Your task to perform on an android device: check android version Image 0: 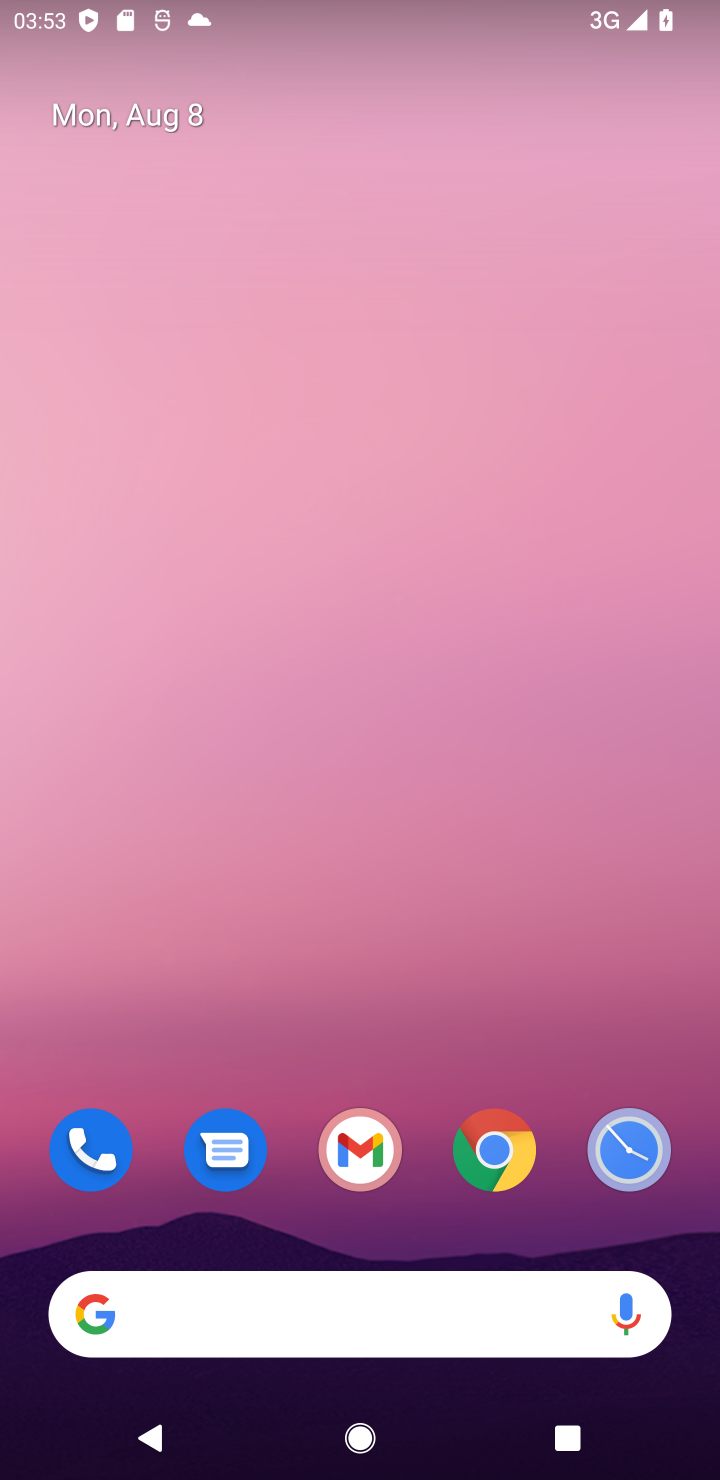
Step 0: drag from (35, 1392) to (348, 564)
Your task to perform on an android device: check android version Image 1: 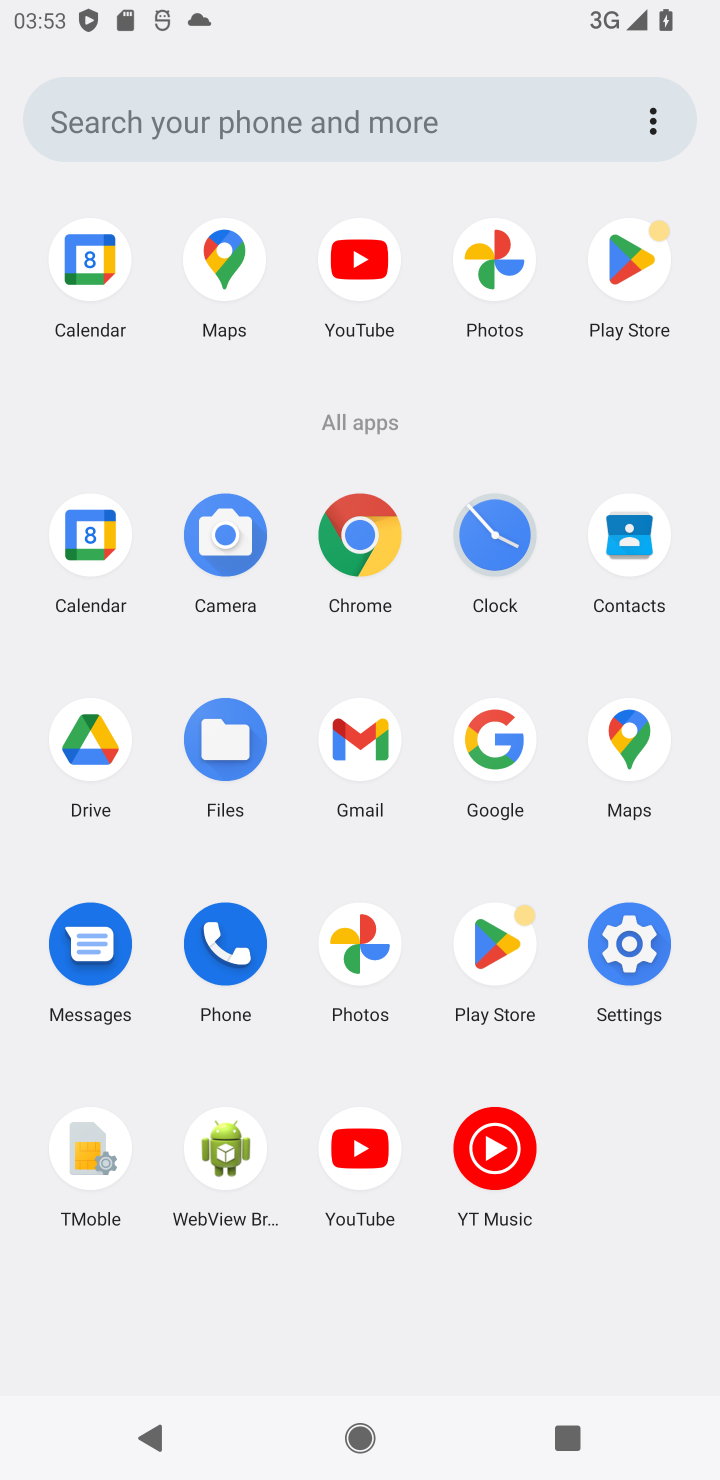
Step 1: click (604, 956)
Your task to perform on an android device: check android version Image 2: 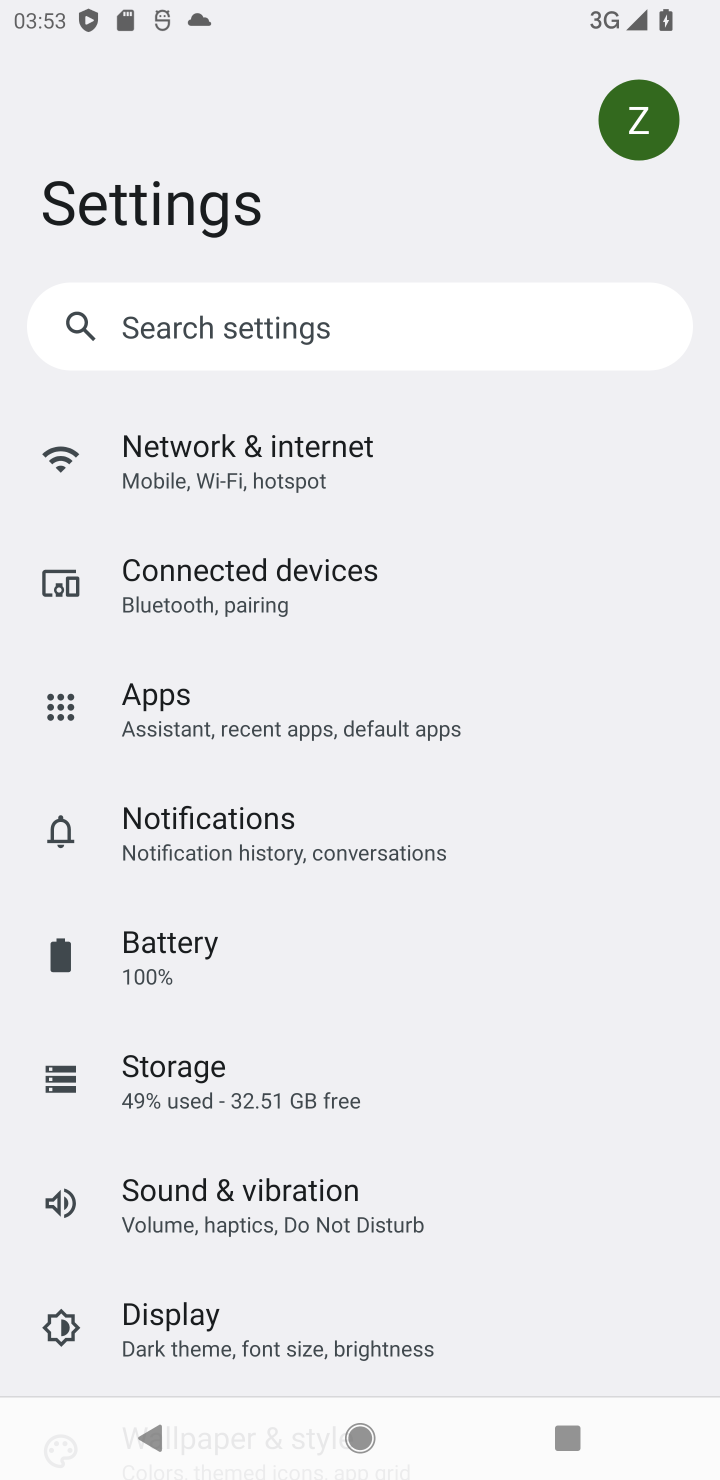
Step 2: drag from (587, 1126) to (564, 810)
Your task to perform on an android device: check android version Image 3: 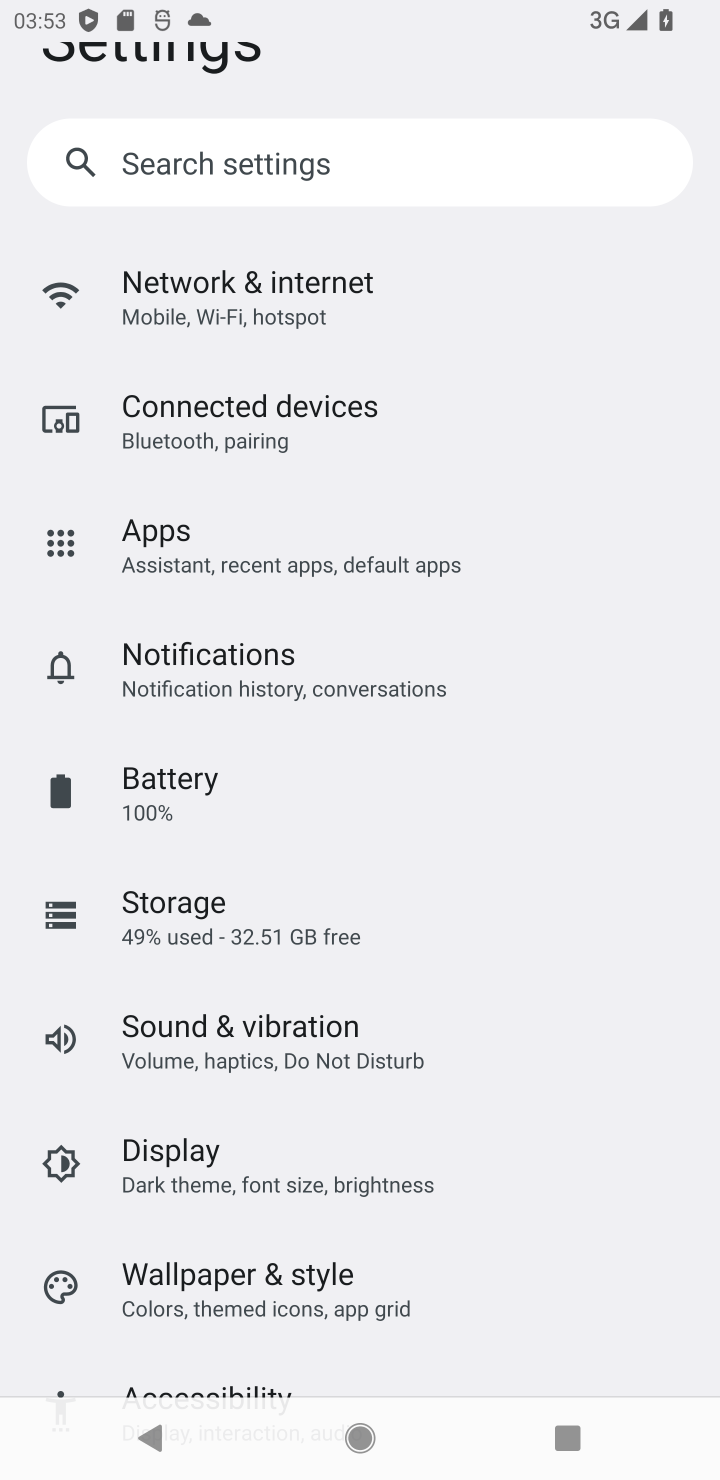
Step 3: drag from (557, 1307) to (627, 816)
Your task to perform on an android device: check android version Image 4: 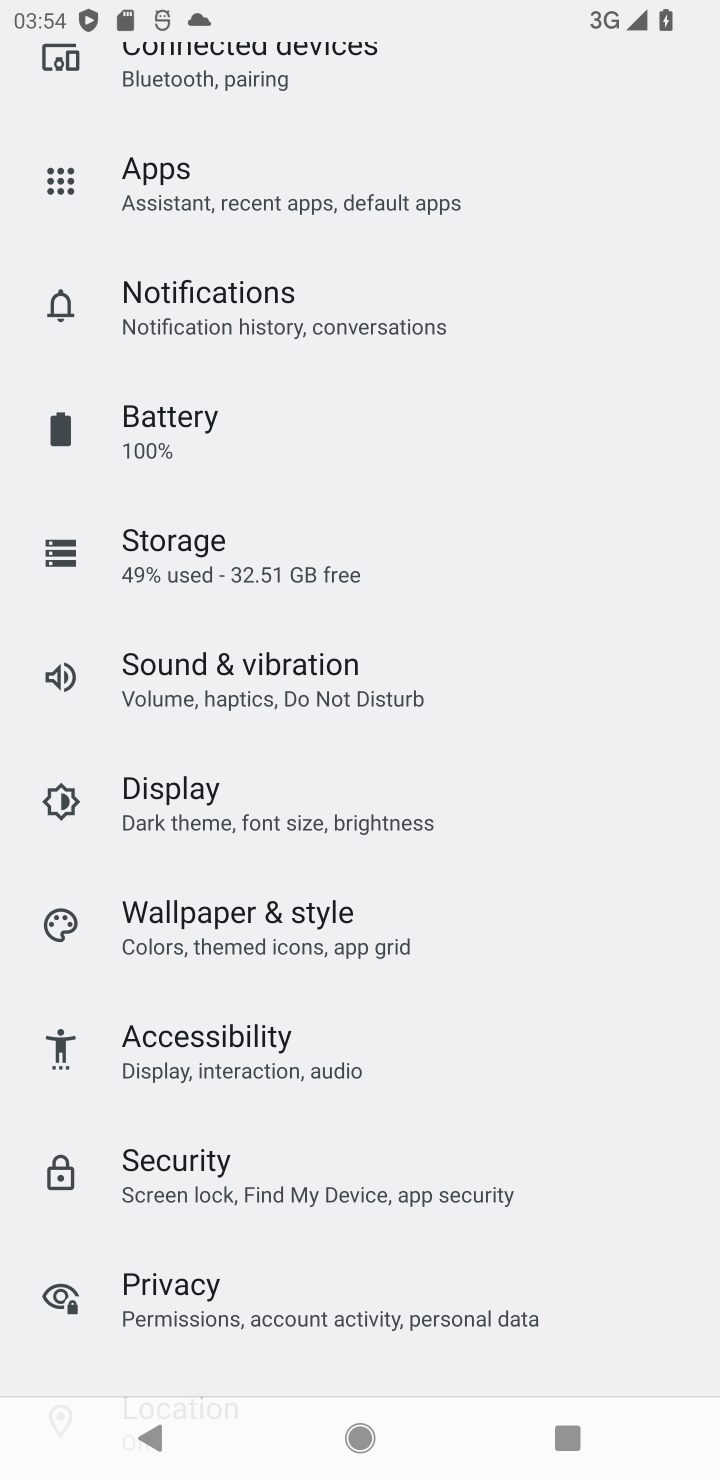
Step 4: drag from (617, 1306) to (576, 425)
Your task to perform on an android device: check android version Image 5: 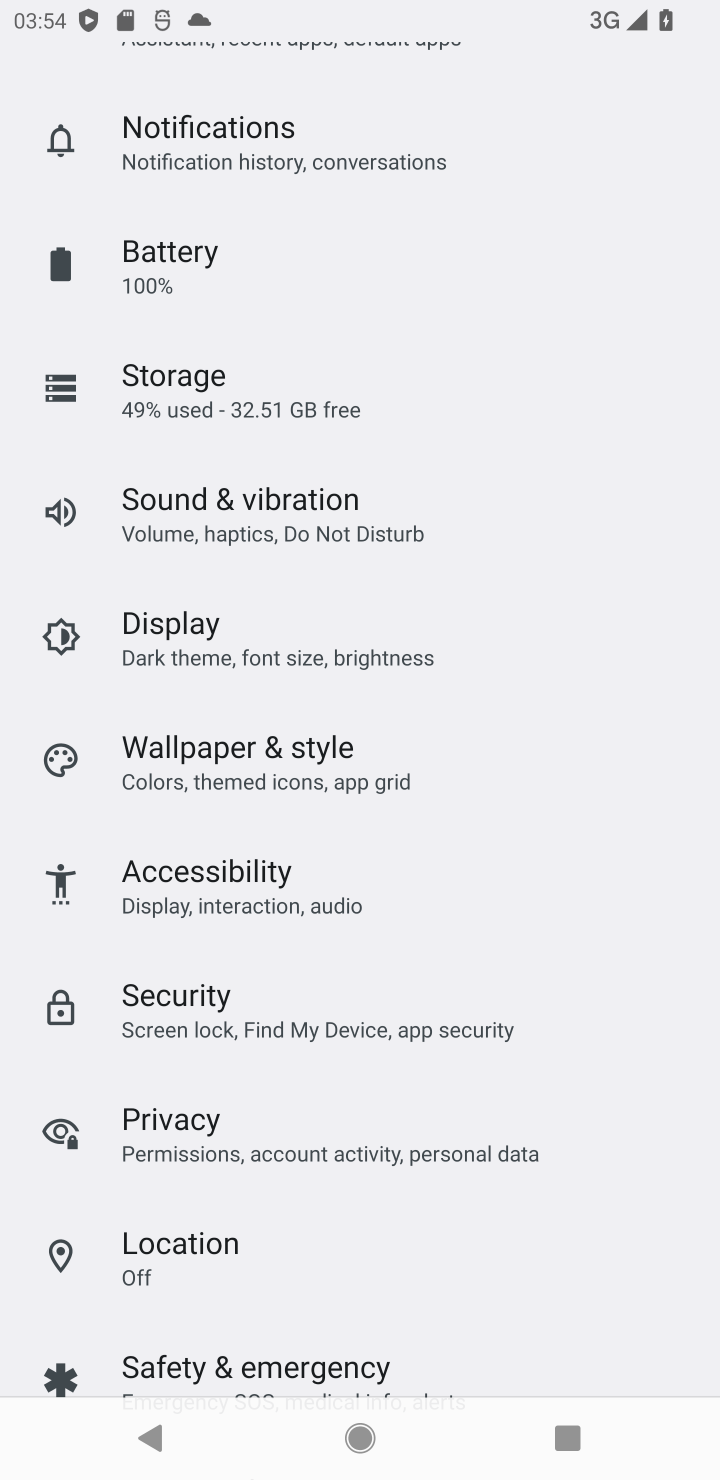
Step 5: drag from (621, 1359) to (596, 423)
Your task to perform on an android device: check android version Image 6: 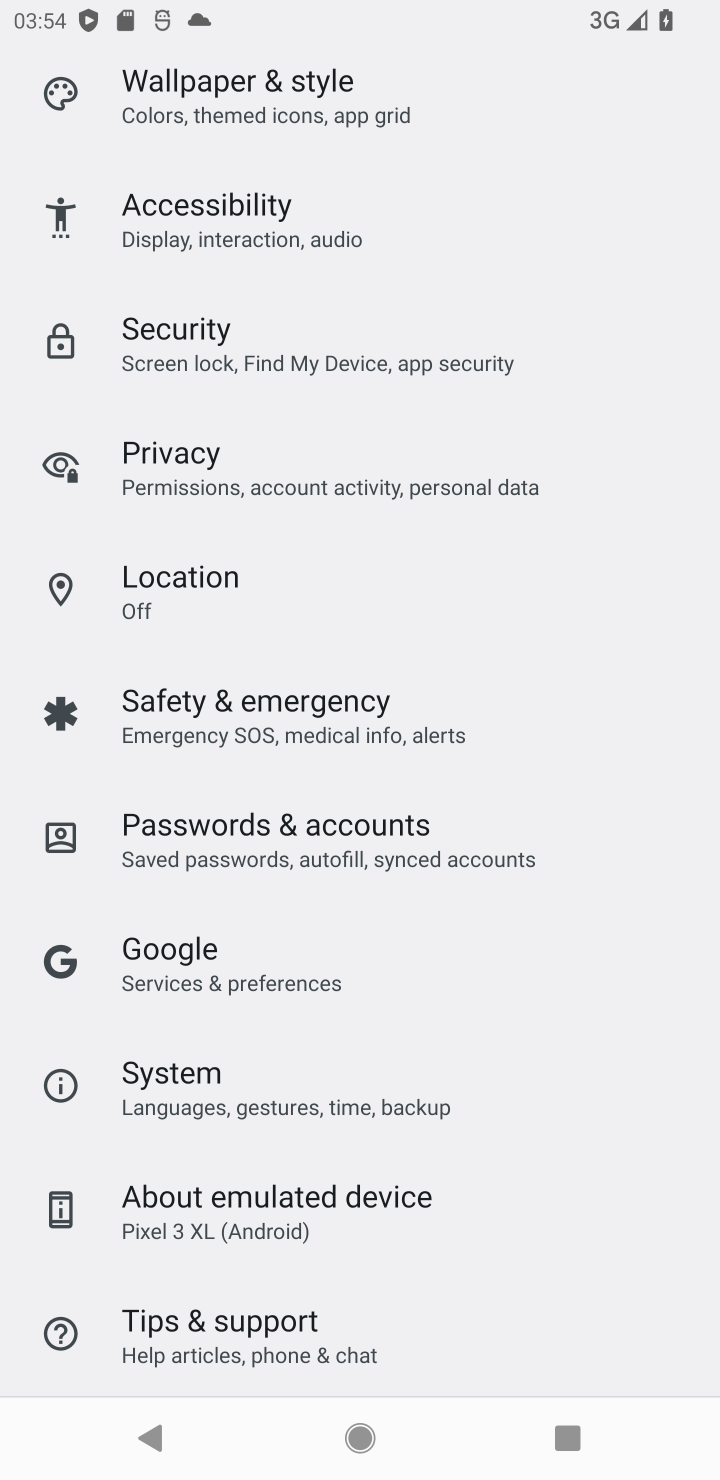
Step 6: click (262, 1225)
Your task to perform on an android device: check android version Image 7: 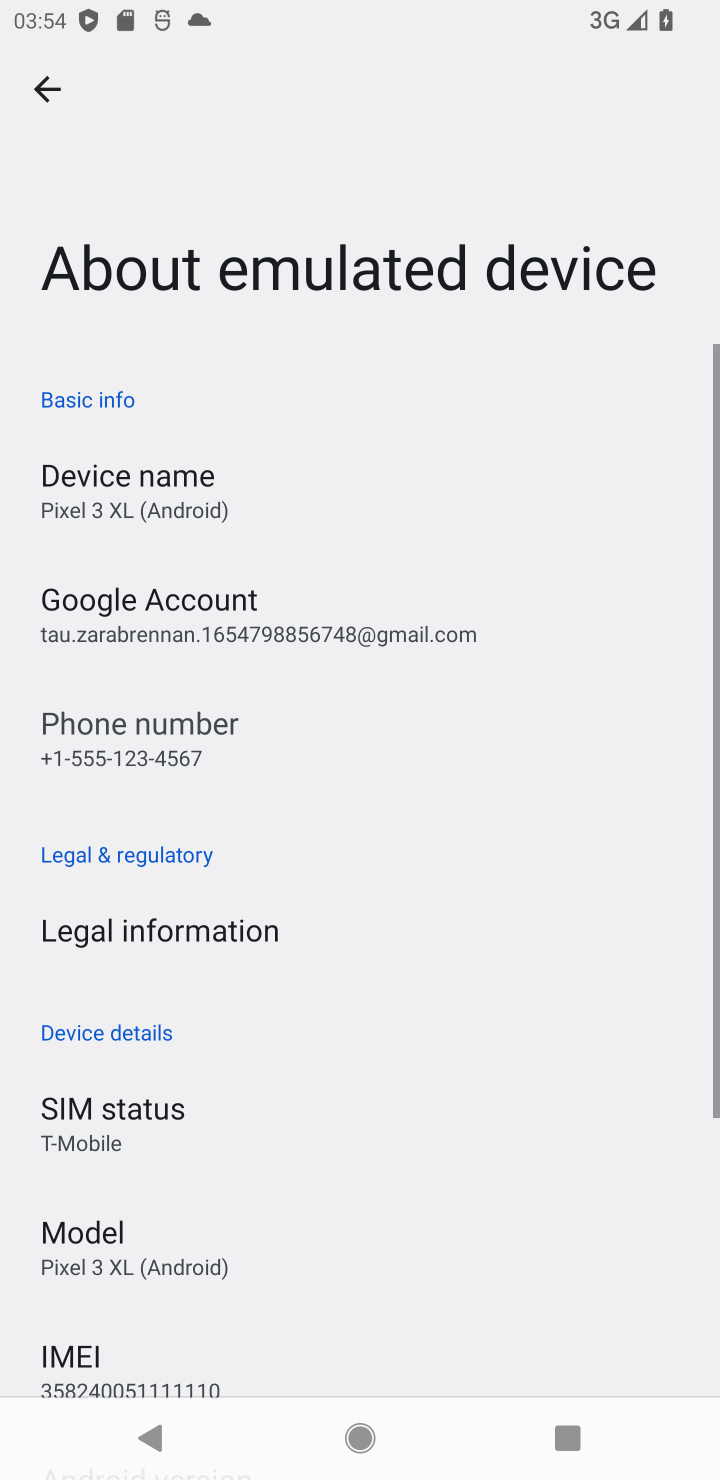
Step 7: drag from (460, 1322) to (492, 733)
Your task to perform on an android device: check android version Image 8: 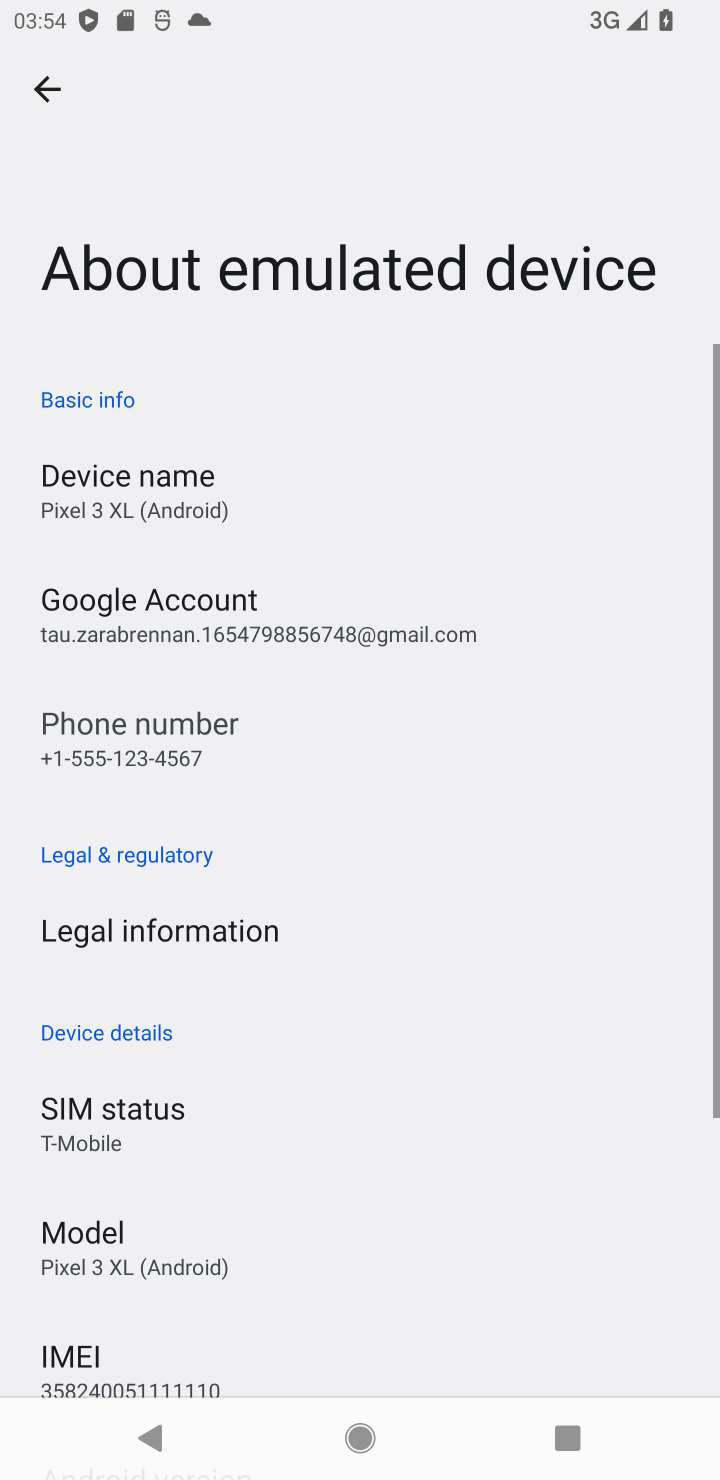
Step 8: drag from (549, 1296) to (513, 870)
Your task to perform on an android device: check android version Image 9: 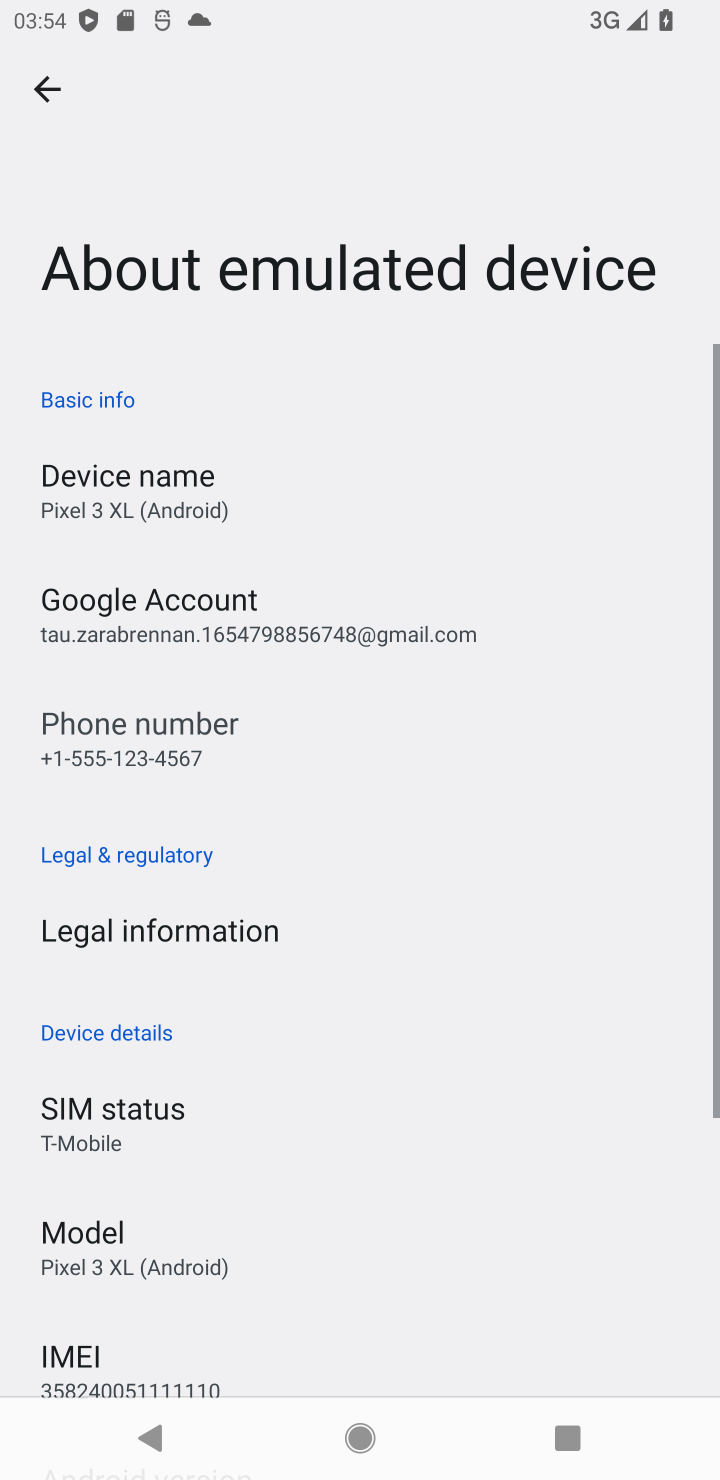
Step 9: click (44, 85)
Your task to perform on an android device: check android version Image 10: 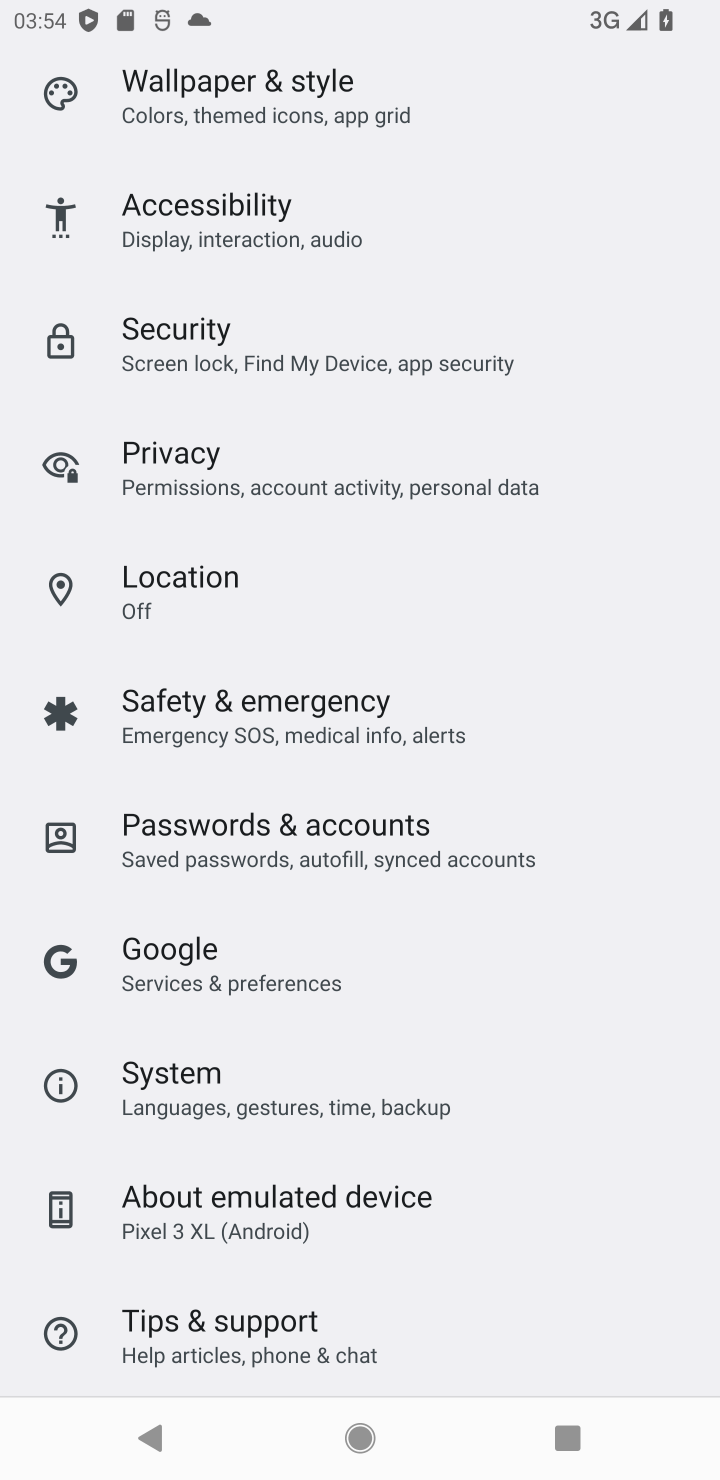
Step 10: click (200, 1074)
Your task to perform on an android device: check android version Image 11: 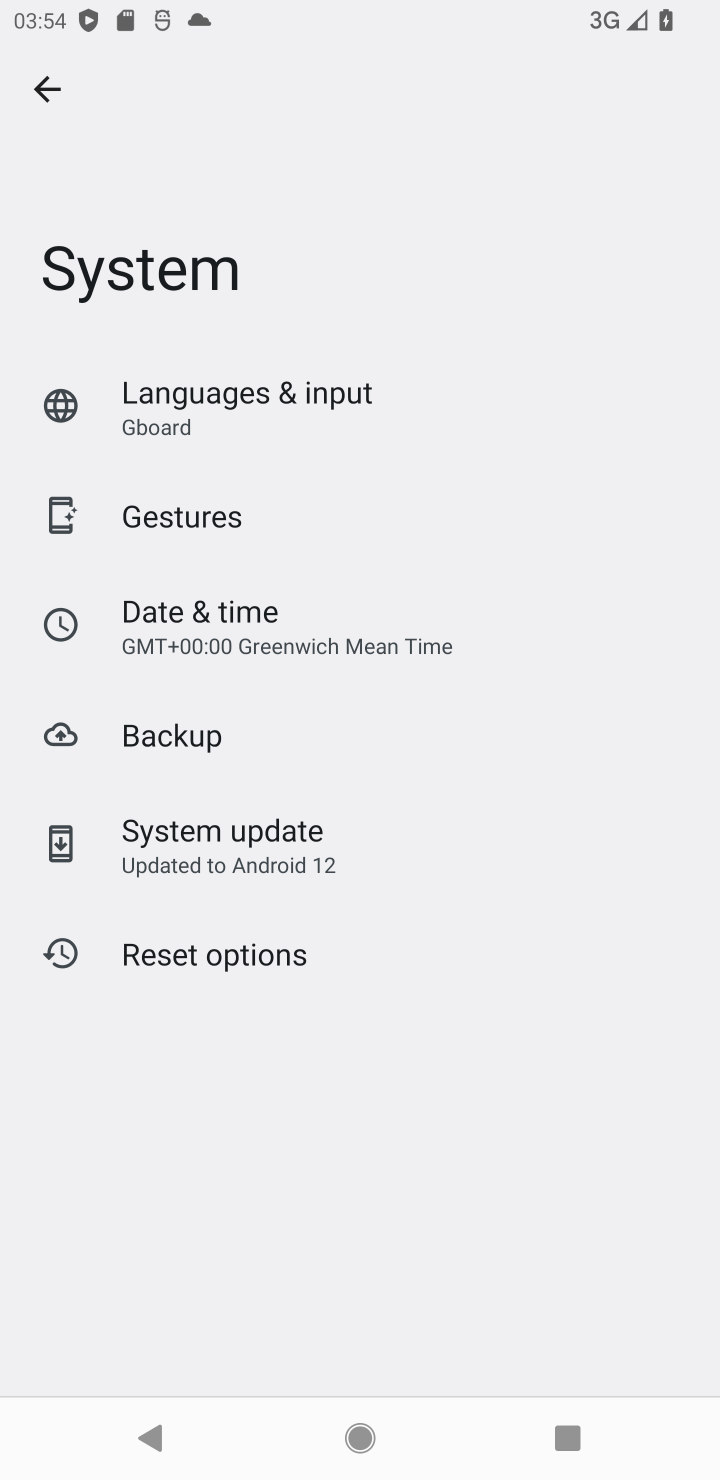
Step 11: click (43, 82)
Your task to perform on an android device: check android version Image 12: 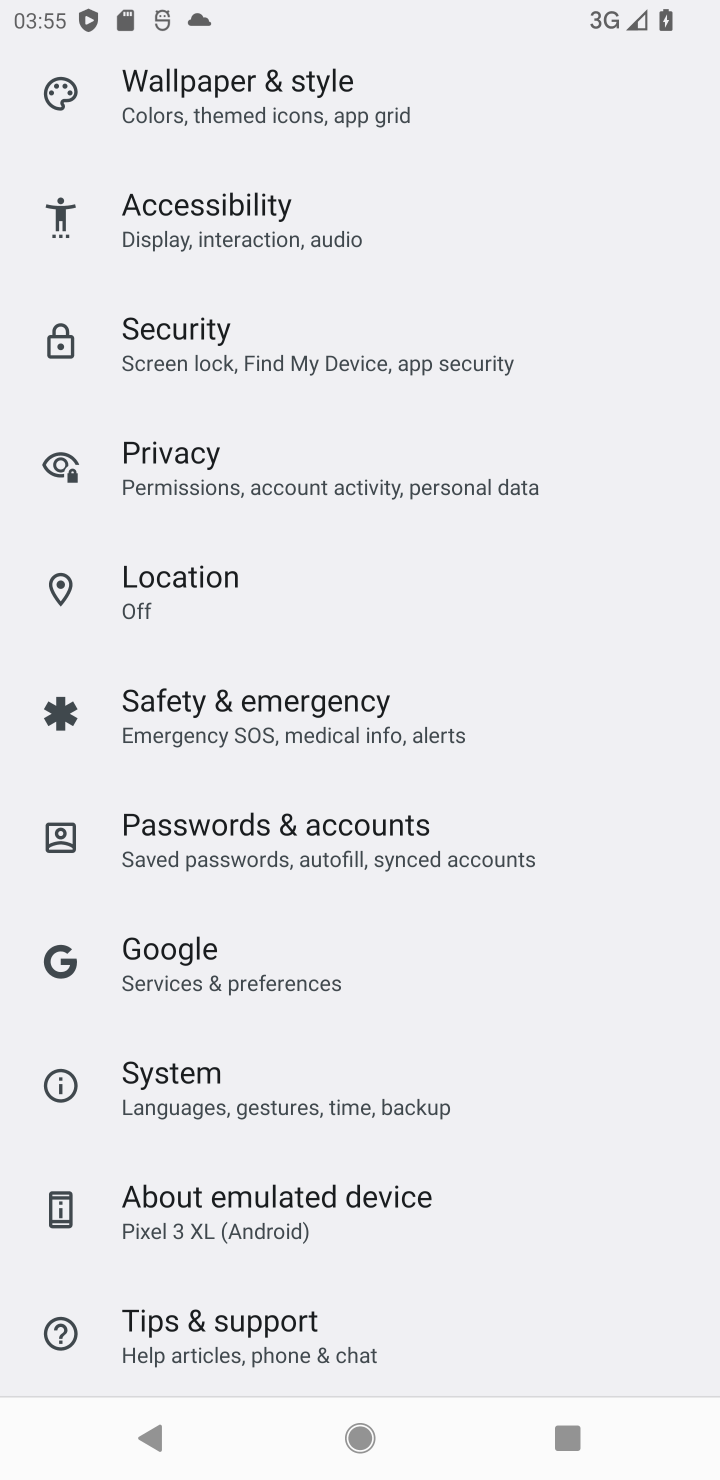
Step 12: click (231, 1204)
Your task to perform on an android device: check android version Image 13: 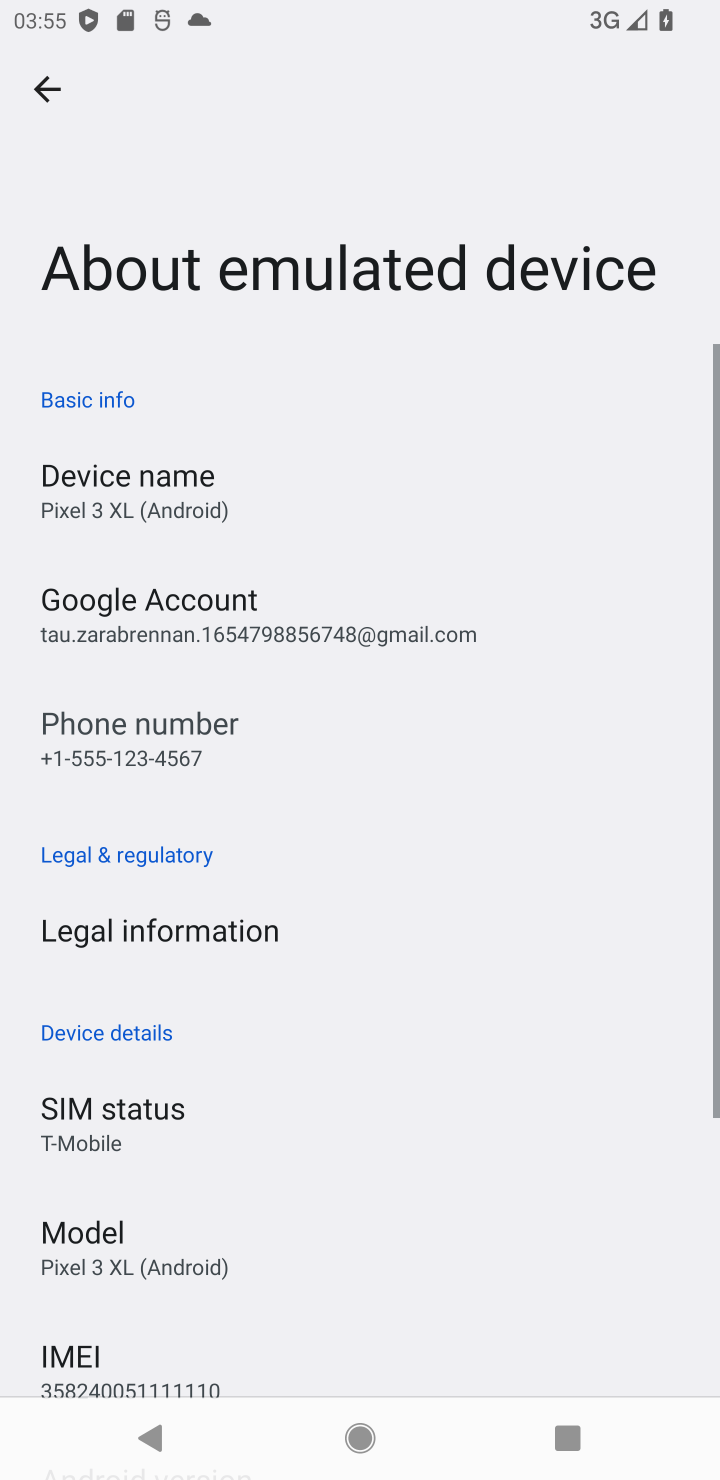
Step 13: task complete